Your task to perform on an android device: turn off location history Image 0: 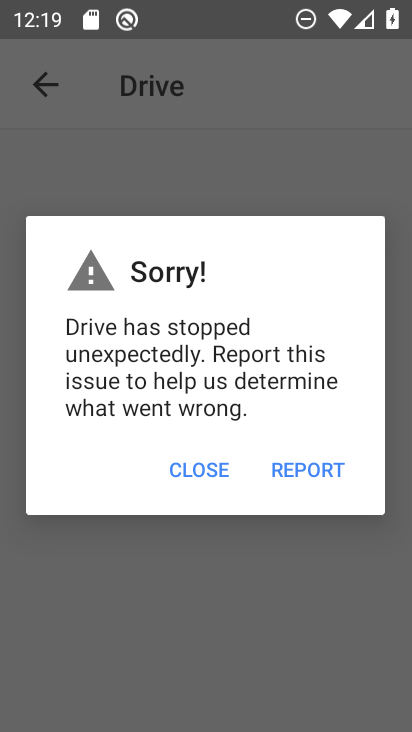
Step 0: press home button
Your task to perform on an android device: turn off location history Image 1: 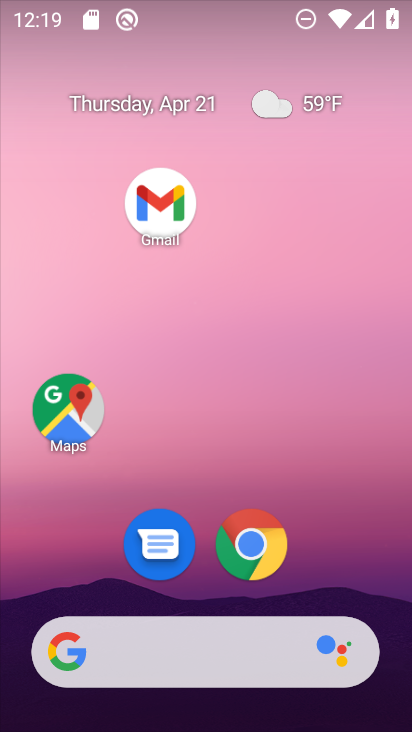
Step 1: drag from (236, 404) to (259, 25)
Your task to perform on an android device: turn off location history Image 2: 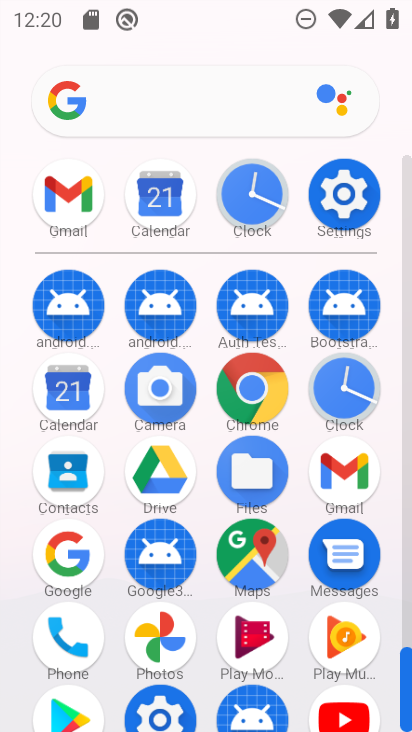
Step 2: click (339, 211)
Your task to perform on an android device: turn off location history Image 3: 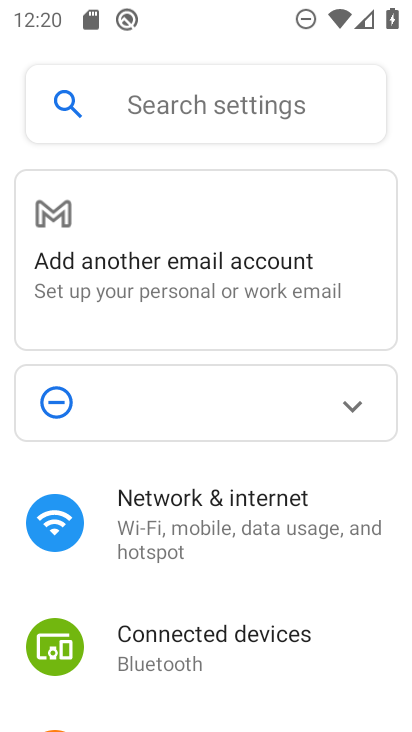
Step 3: drag from (253, 628) to (253, 42)
Your task to perform on an android device: turn off location history Image 4: 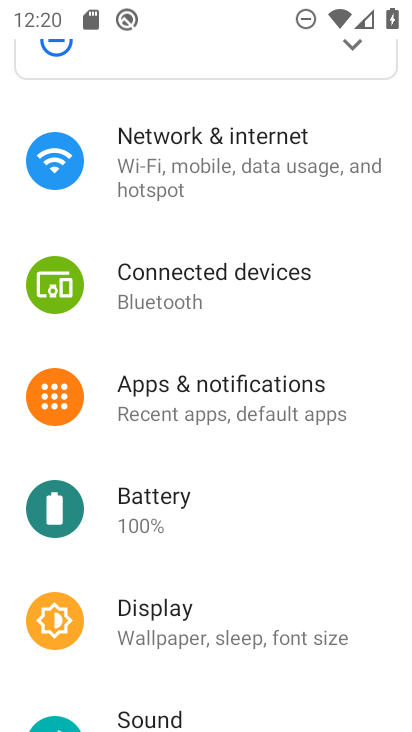
Step 4: drag from (270, 535) to (285, 181)
Your task to perform on an android device: turn off location history Image 5: 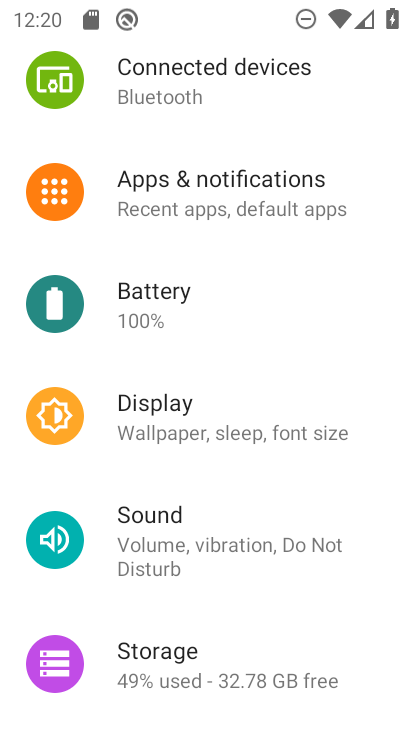
Step 5: drag from (241, 505) to (265, 171)
Your task to perform on an android device: turn off location history Image 6: 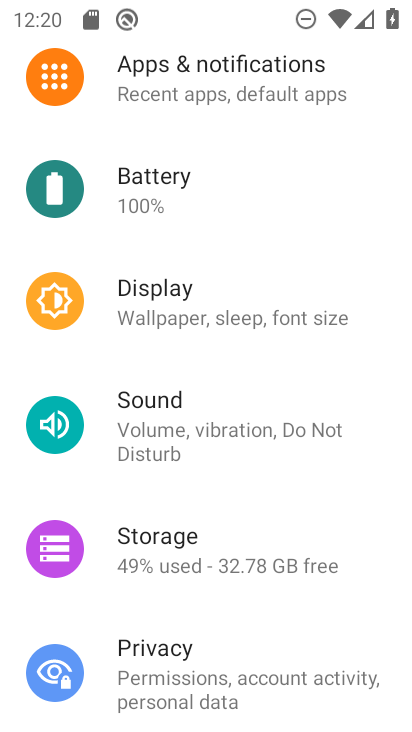
Step 6: drag from (226, 654) to (290, 187)
Your task to perform on an android device: turn off location history Image 7: 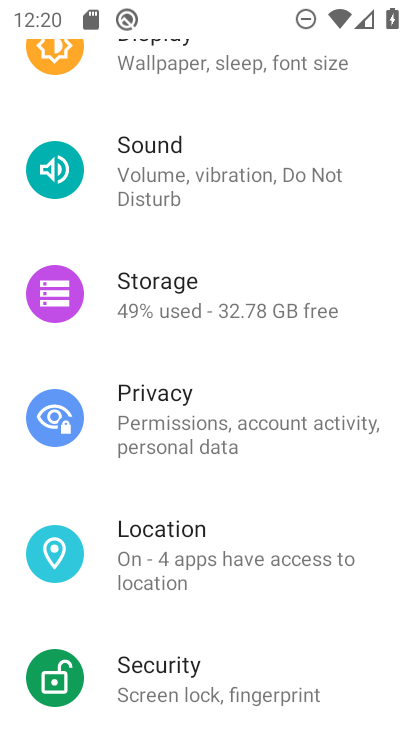
Step 7: click (228, 546)
Your task to perform on an android device: turn off location history Image 8: 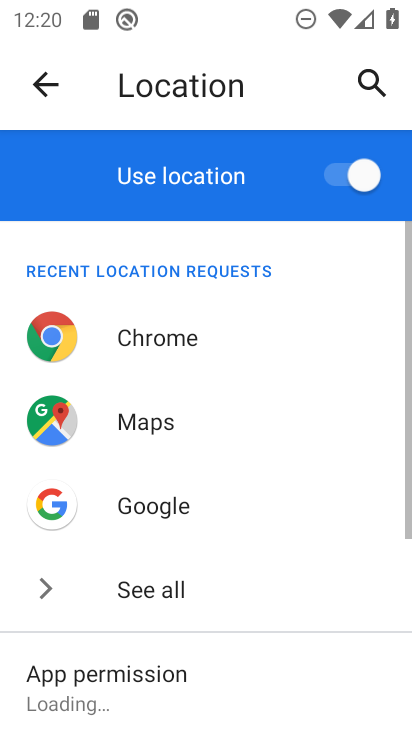
Step 8: drag from (228, 479) to (248, 131)
Your task to perform on an android device: turn off location history Image 9: 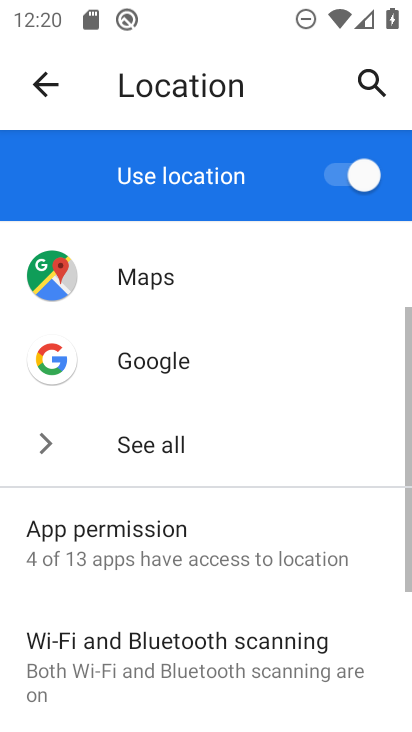
Step 9: drag from (209, 612) to (256, 141)
Your task to perform on an android device: turn off location history Image 10: 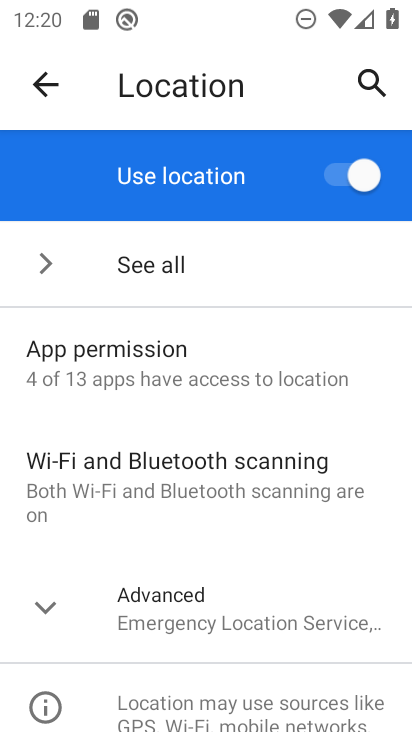
Step 10: click (217, 627)
Your task to perform on an android device: turn off location history Image 11: 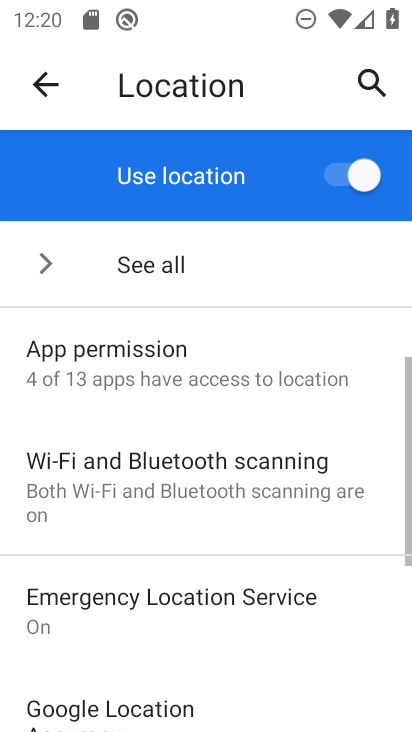
Step 11: drag from (217, 627) to (259, 153)
Your task to perform on an android device: turn off location history Image 12: 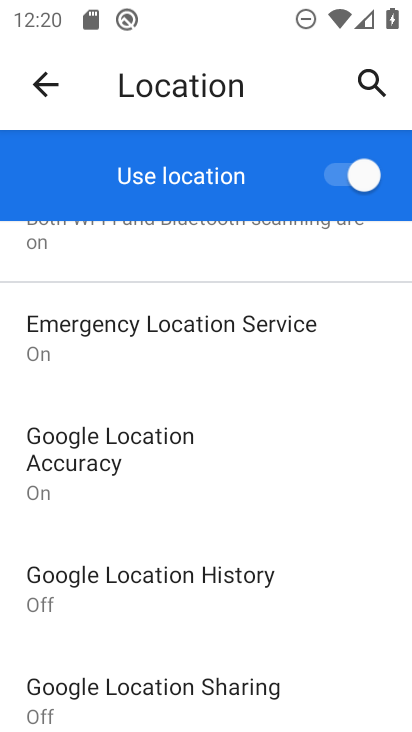
Step 12: click (244, 569)
Your task to perform on an android device: turn off location history Image 13: 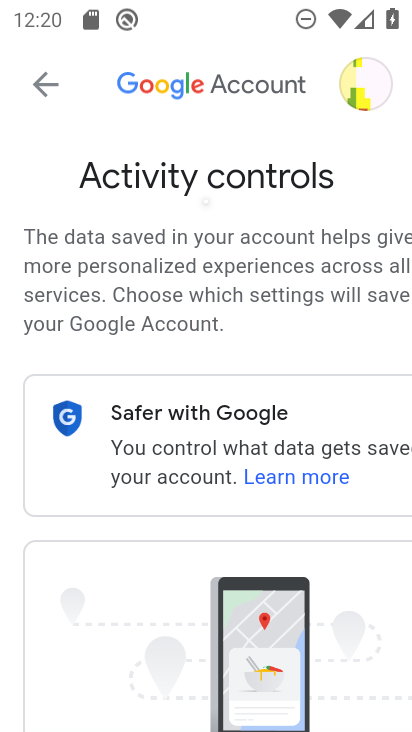
Step 13: drag from (256, 521) to (330, 92)
Your task to perform on an android device: turn off location history Image 14: 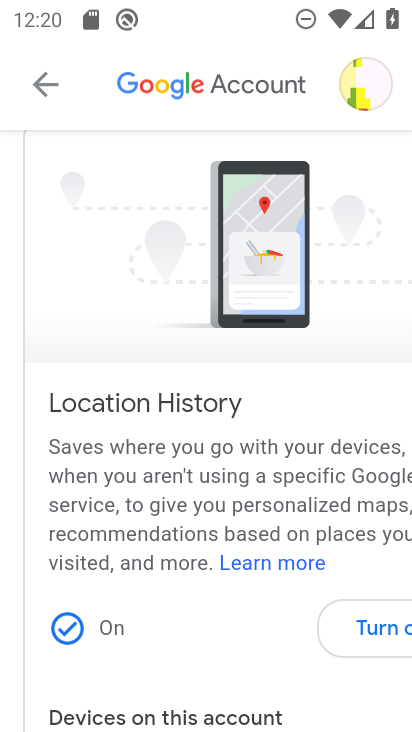
Step 14: drag from (252, 613) to (281, 197)
Your task to perform on an android device: turn off location history Image 15: 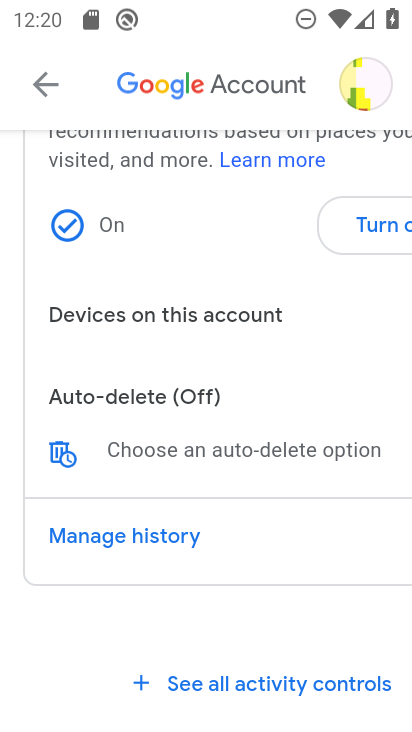
Step 15: click (389, 225)
Your task to perform on an android device: turn off location history Image 16: 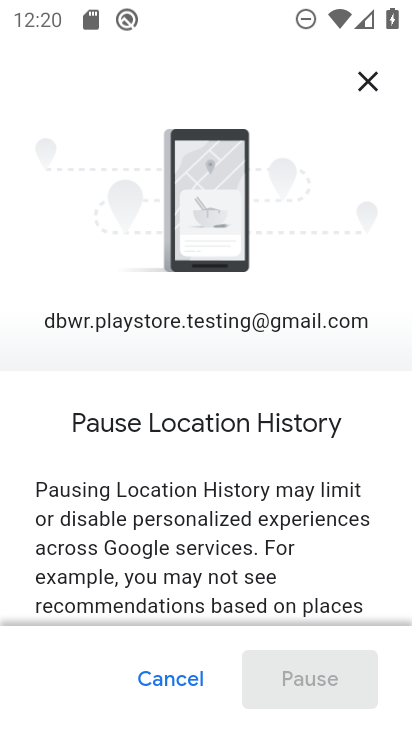
Step 16: drag from (320, 584) to (339, 106)
Your task to perform on an android device: turn off location history Image 17: 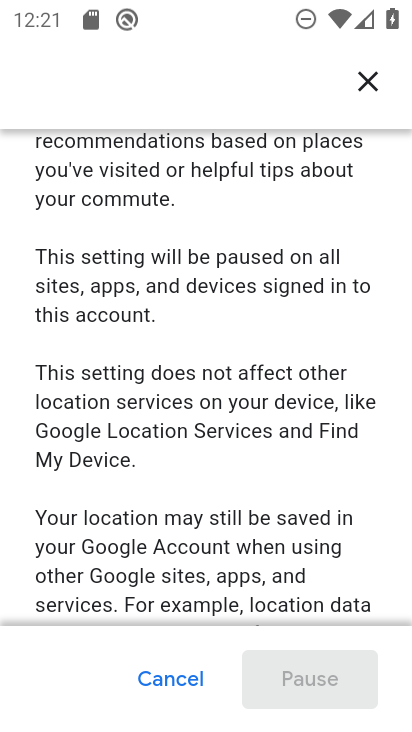
Step 17: drag from (288, 514) to (273, 41)
Your task to perform on an android device: turn off location history Image 18: 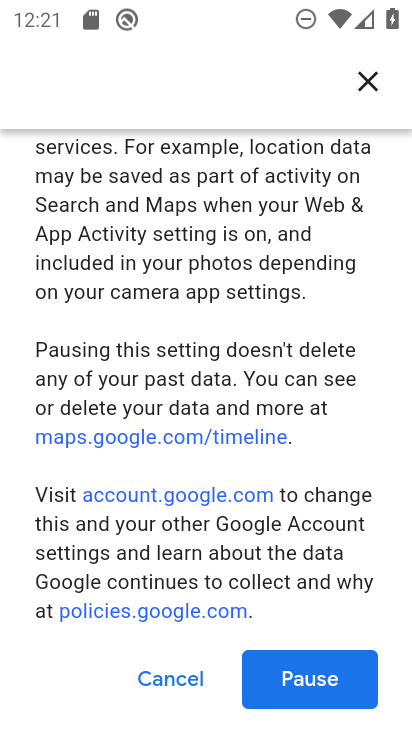
Step 18: drag from (155, 517) to (239, 235)
Your task to perform on an android device: turn off location history Image 19: 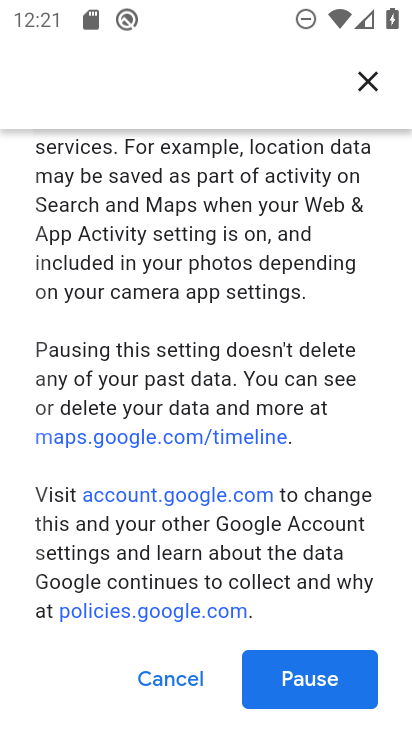
Step 19: click (330, 704)
Your task to perform on an android device: turn off location history Image 20: 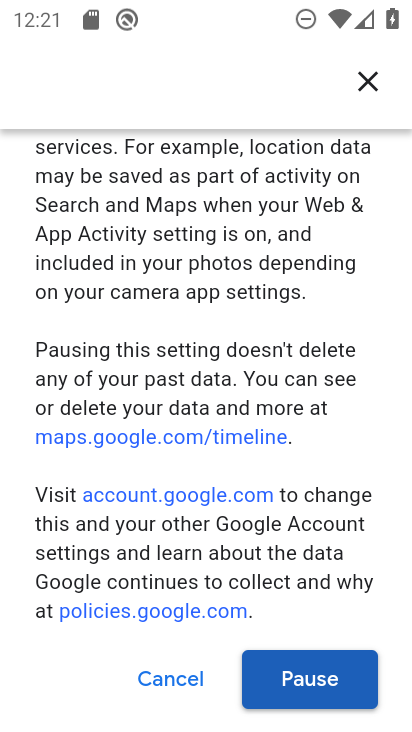
Step 20: click (363, 686)
Your task to perform on an android device: turn off location history Image 21: 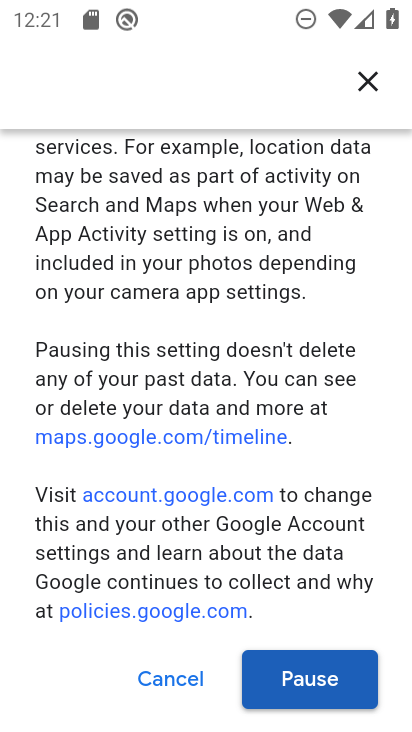
Step 21: click (342, 696)
Your task to perform on an android device: turn off location history Image 22: 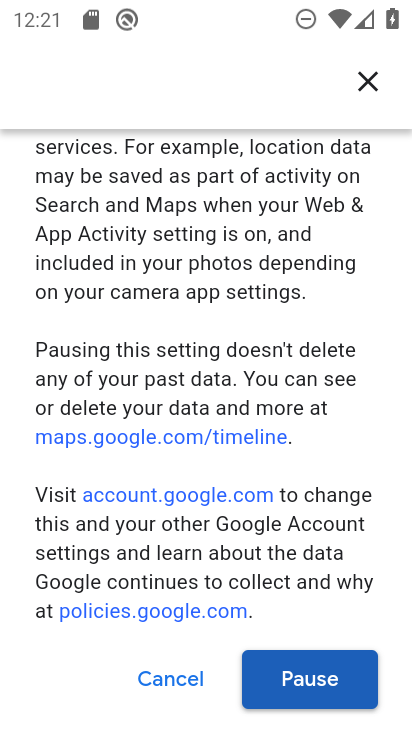
Step 22: drag from (252, 294) to (220, 460)
Your task to perform on an android device: turn off location history Image 23: 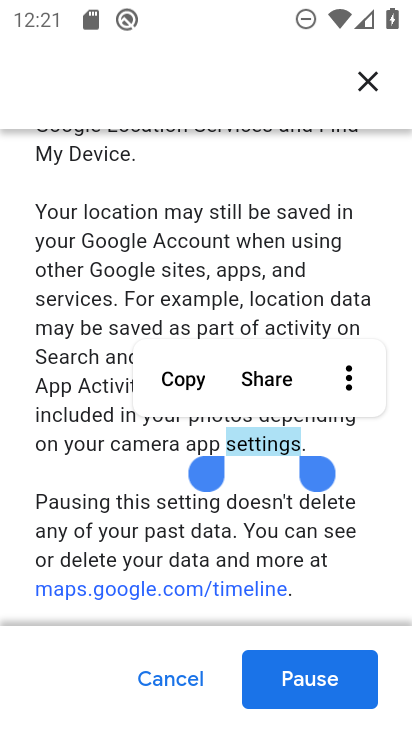
Step 23: drag from (233, 467) to (282, 180)
Your task to perform on an android device: turn off location history Image 24: 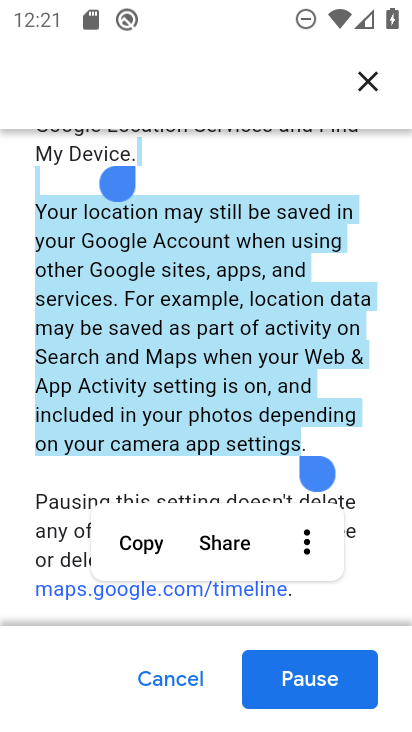
Step 24: click (383, 475)
Your task to perform on an android device: turn off location history Image 25: 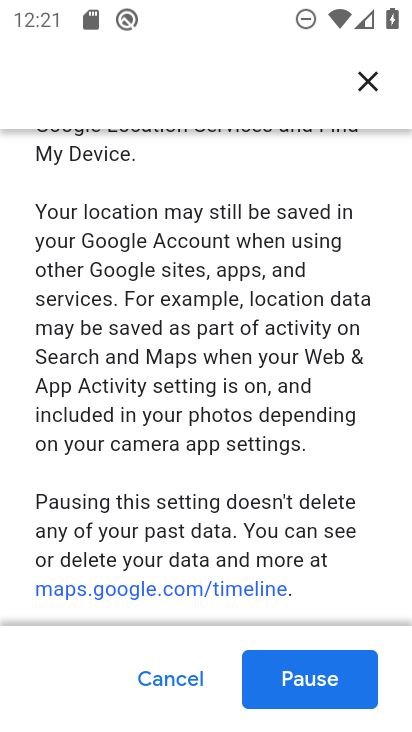
Step 25: click (342, 678)
Your task to perform on an android device: turn off location history Image 26: 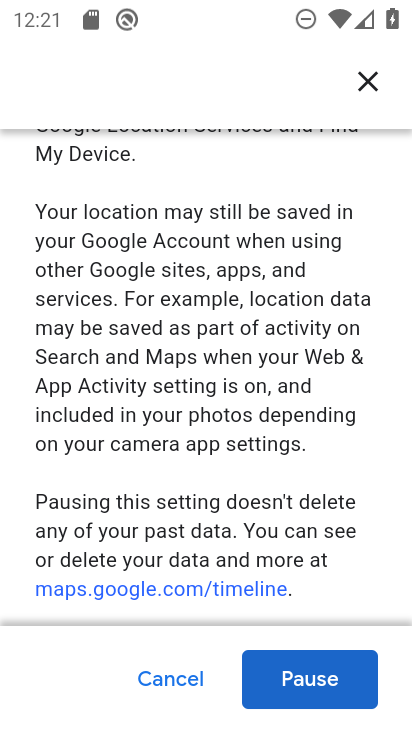
Step 26: click (342, 678)
Your task to perform on an android device: turn off location history Image 27: 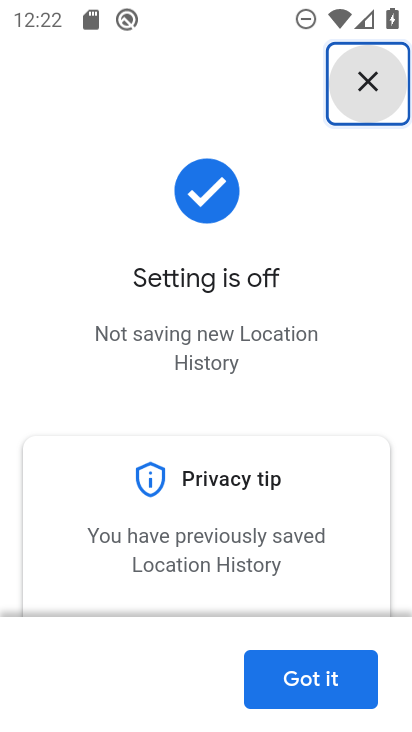
Step 27: click (342, 678)
Your task to perform on an android device: turn off location history Image 28: 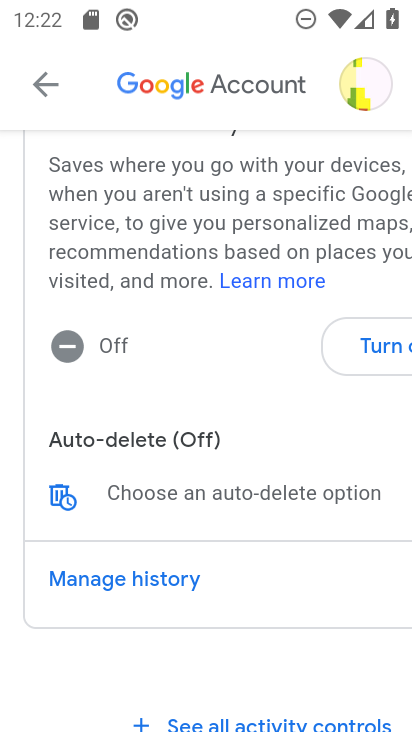
Step 28: task complete